Your task to perform on an android device: Open display settings Image 0: 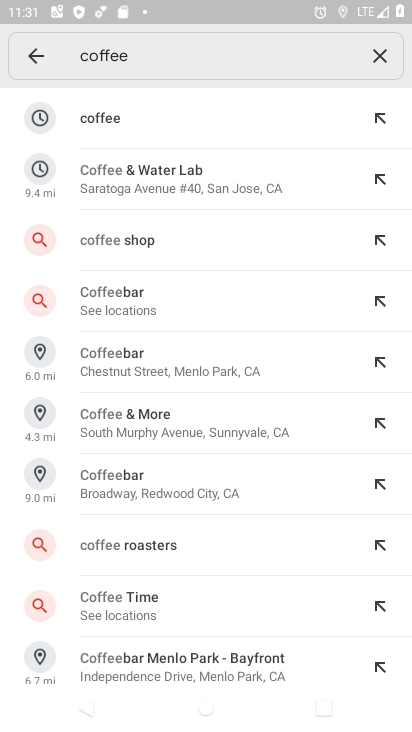
Step 0: press home button
Your task to perform on an android device: Open display settings Image 1: 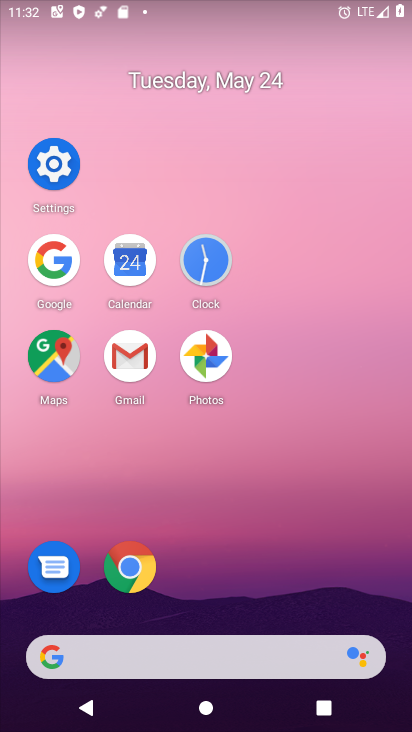
Step 1: click (59, 166)
Your task to perform on an android device: Open display settings Image 2: 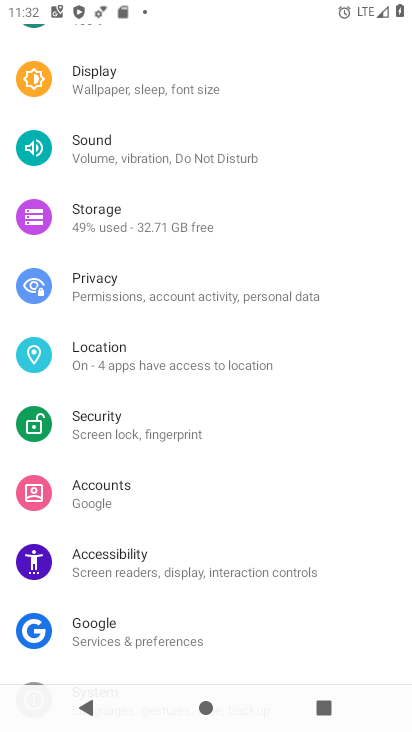
Step 2: click (206, 88)
Your task to perform on an android device: Open display settings Image 3: 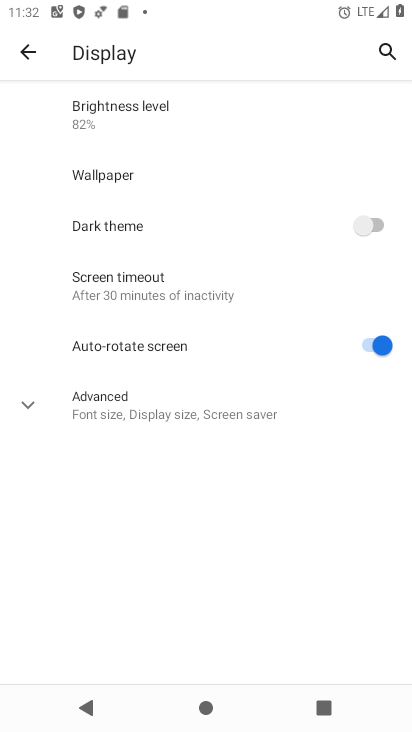
Step 3: task complete